Your task to perform on an android device: check storage Image 0: 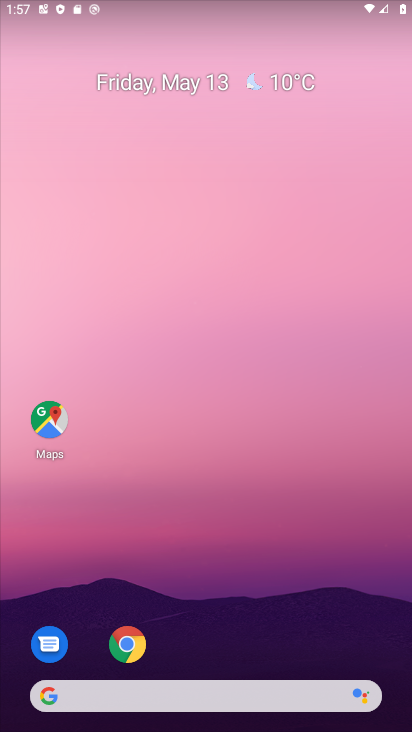
Step 0: drag from (217, 702) to (217, 210)
Your task to perform on an android device: check storage Image 1: 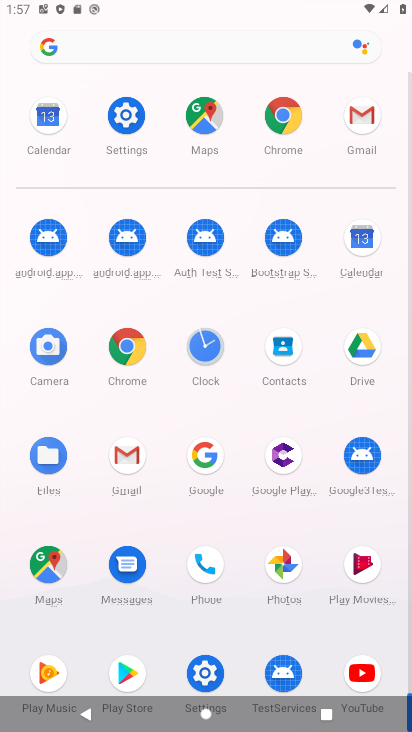
Step 1: click (121, 109)
Your task to perform on an android device: check storage Image 2: 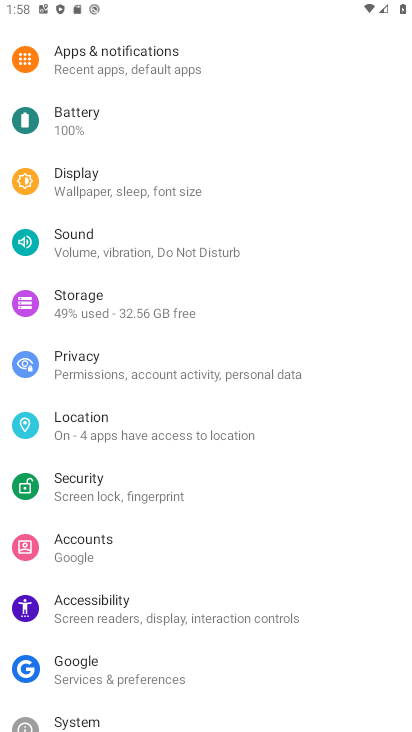
Step 2: click (109, 307)
Your task to perform on an android device: check storage Image 3: 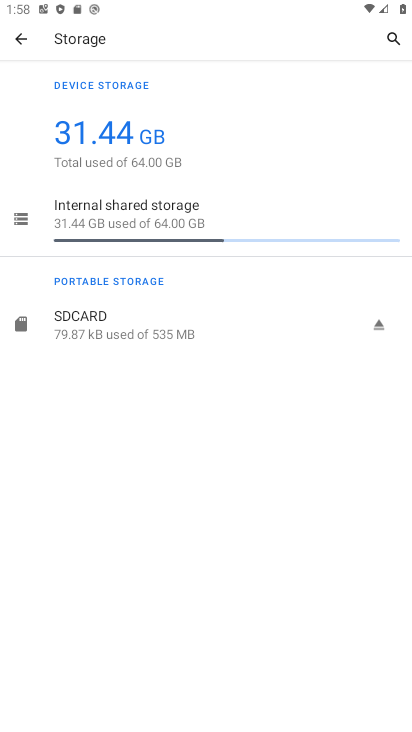
Step 3: task complete